Your task to perform on an android device: Turn on the flashlight Image 0: 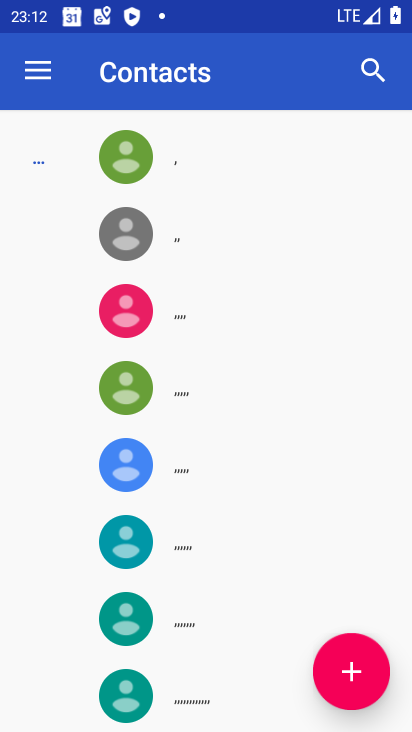
Step 0: press home button
Your task to perform on an android device: Turn on the flashlight Image 1: 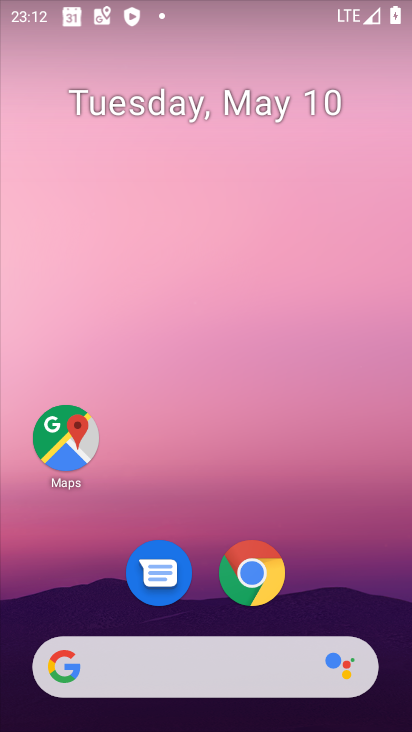
Step 1: drag from (346, 547) to (147, 33)
Your task to perform on an android device: Turn on the flashlight Image 2: 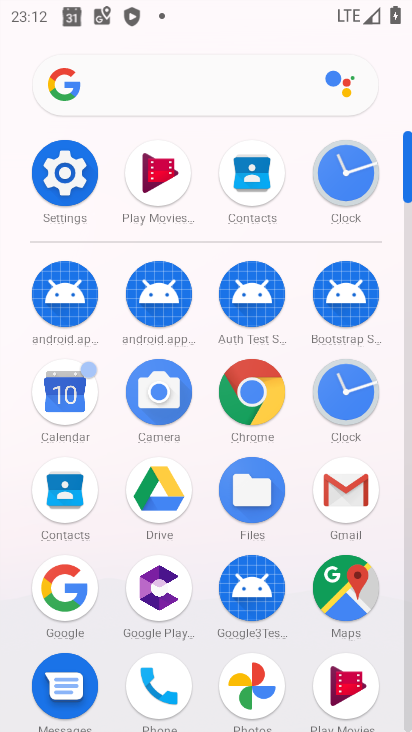
Step 2: click (60, 173)
Your task to perform on an android device: Turn on the flashlight Image 3: 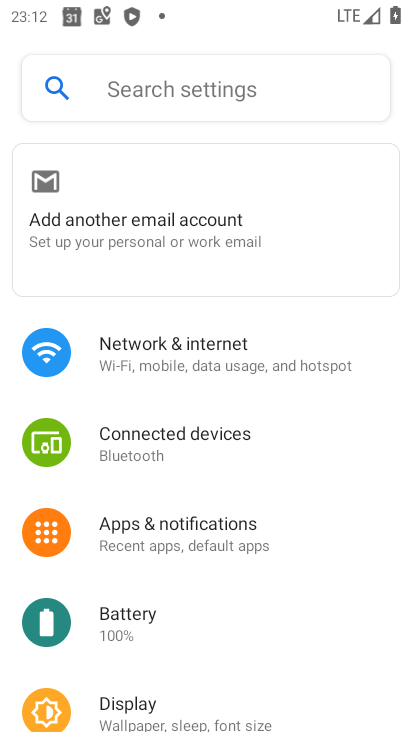
Step 3: click (121, 700)
Your task to perform on an android device: Turn on the flashlight Image 4: 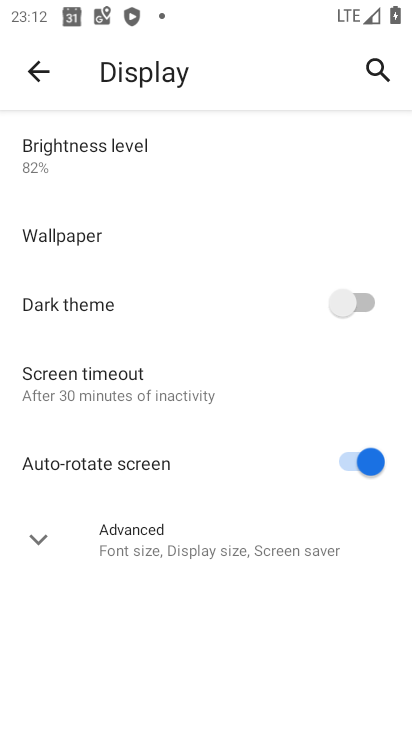
Step 4: task complete